Your task to perform on an android device: Go to Wikipedia Image 0: 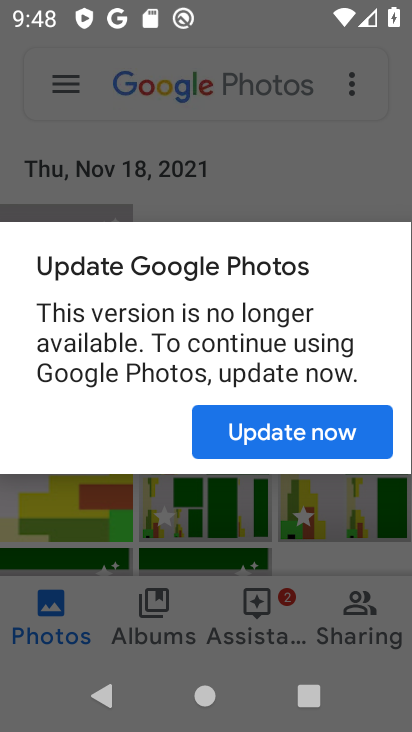
Step 0: click (332, 430)
Your task to perform on an android device: Go to Wikipedia Image 1: 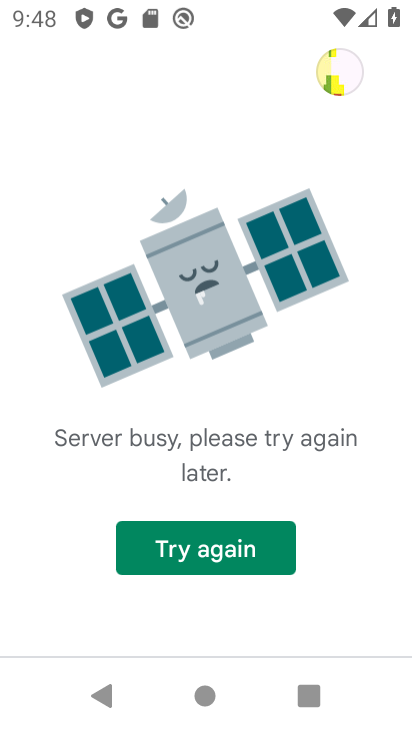
Step 1: press home button
Your task to perform on an android device: Go to Wikipedia Image 2: 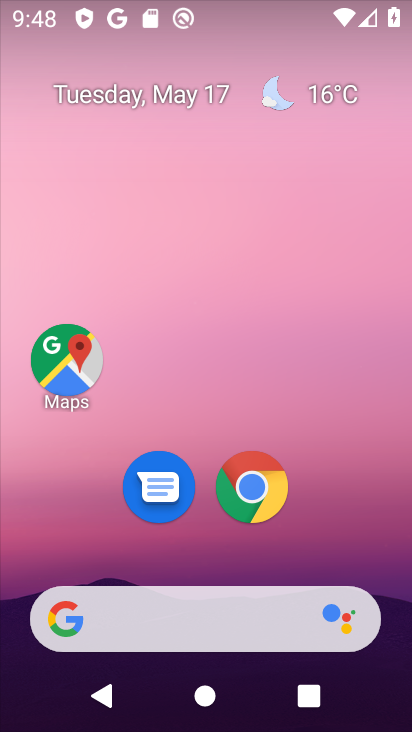
Step 2: drag from (359, 478) to (357, 294)
Your task to perform on an android device: Go to Wikipedia Image 3: 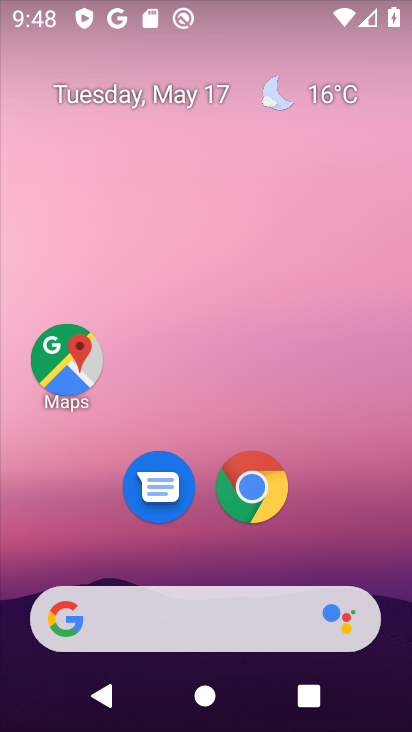
Step 3: drag from (400, 628) to (387, 273)
Your task to perform on an android device: Go to Wikipedia Image 4: 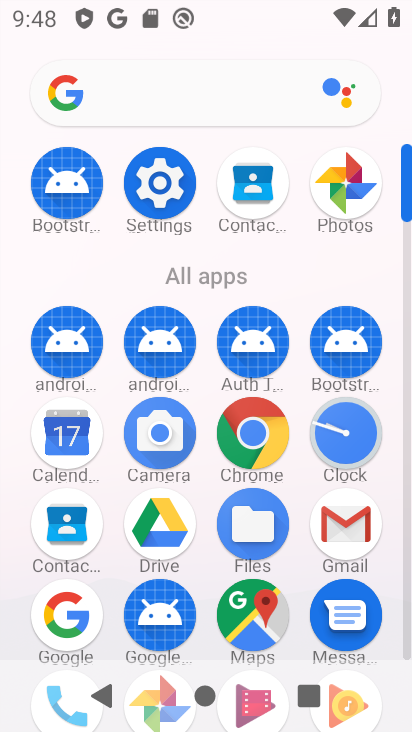
Step 4: click (254, 439)
Your task to perform on an android device: Go to Wikipedia Image 5: 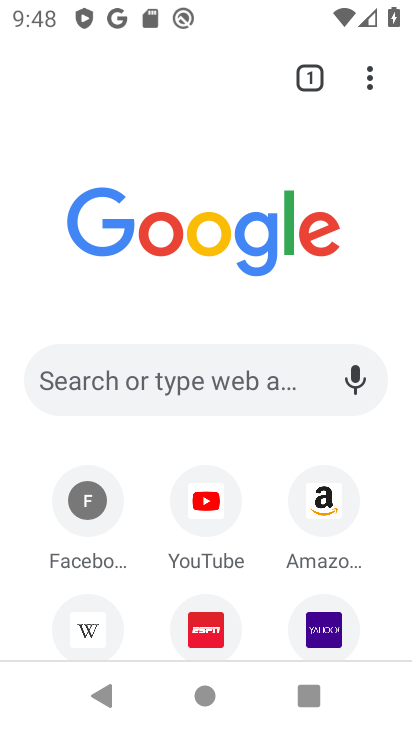
Step 5: click (149, 383)
Your task to perform on an android device: Go to Wikipedia Image 6: 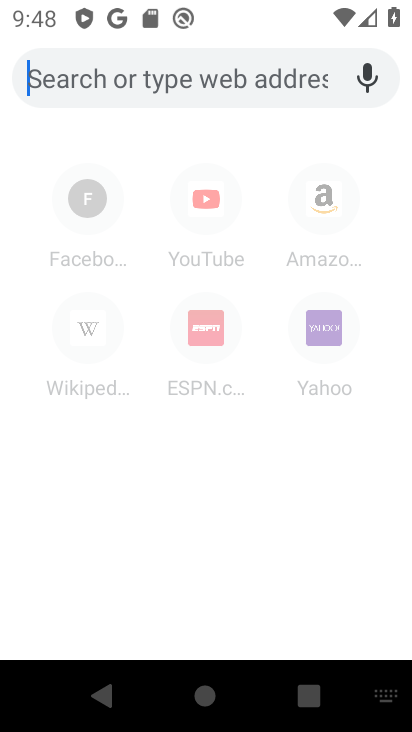
Step 6: type "Wikipedia"
Your task to perform on an android device: Go to Wikipedia Image 7: 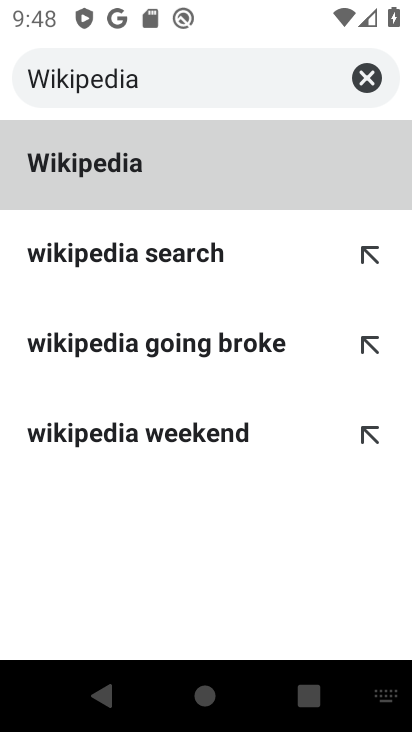
Step 7: click (127, 155)
Your task to perform on an android device: Go to Wikipedia Image 8: 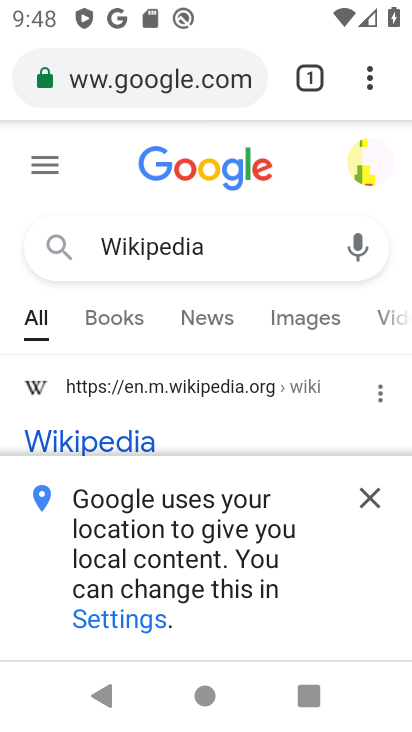
Step 8: click (366, 506)
Your task to perform on an android device: Go to Wikipedia Image 9: 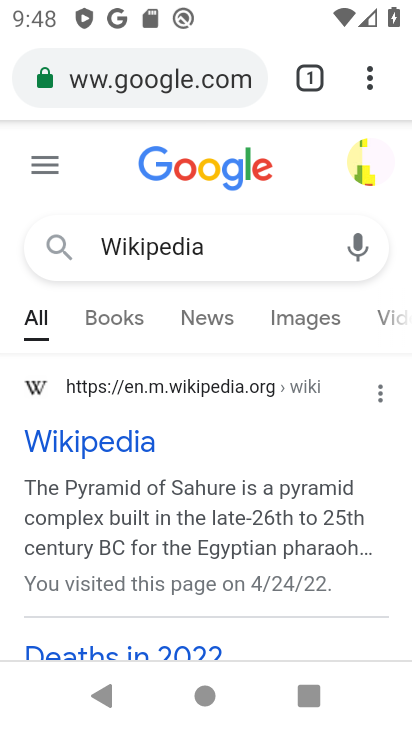
Step 9: task complete